Your task to perform on an android device: Open Amazon Image 0: 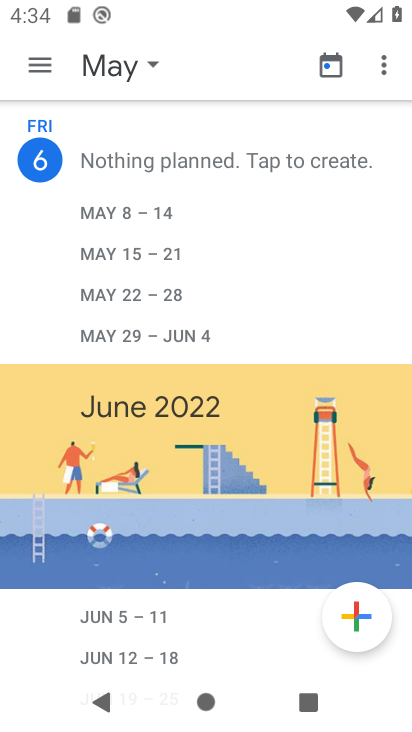
Step 0: press home button
Your task to perform on an android device: Open Amazon Image 1: 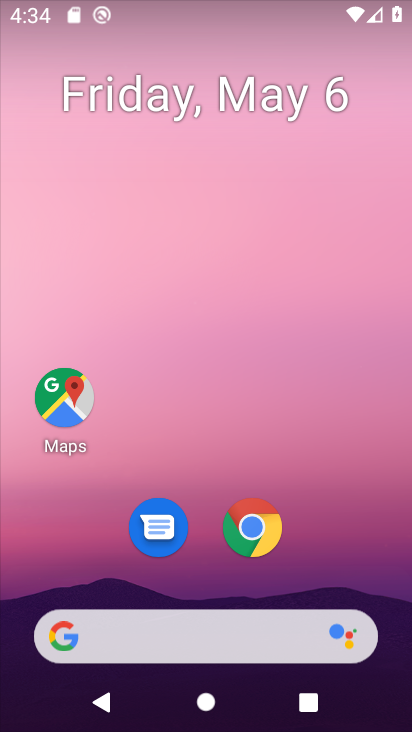
Step 1: click (262, 526)
Your task to perform on an android device: Open Amazon Image 2: 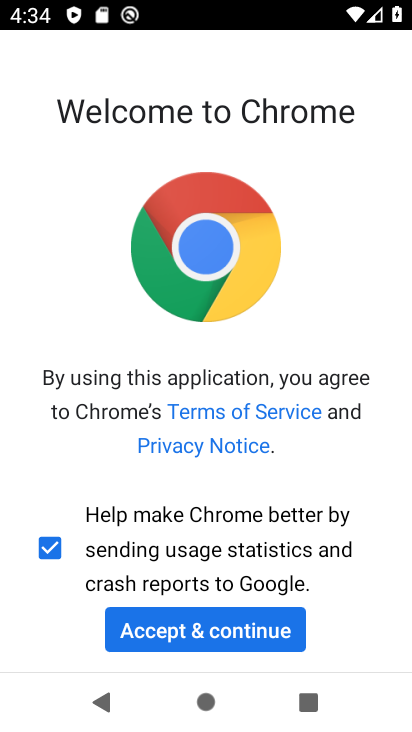
Step 2: click (218, 618)
Your task to perform on an android device: Open Amazon Image 3: 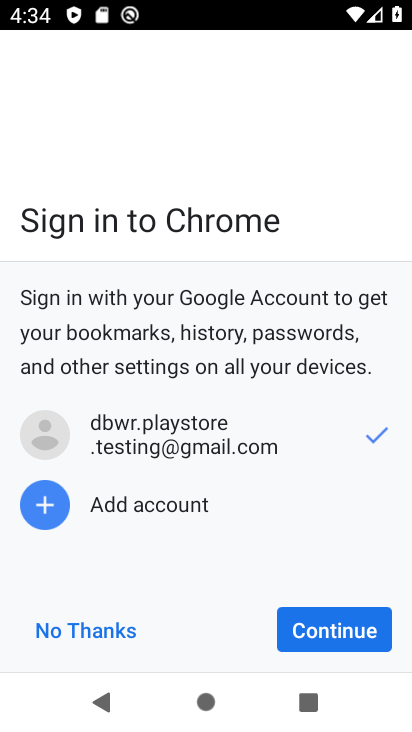
Step 3: click (333, 651)
Your task to perform on an android device: Open Amazon Image 4: 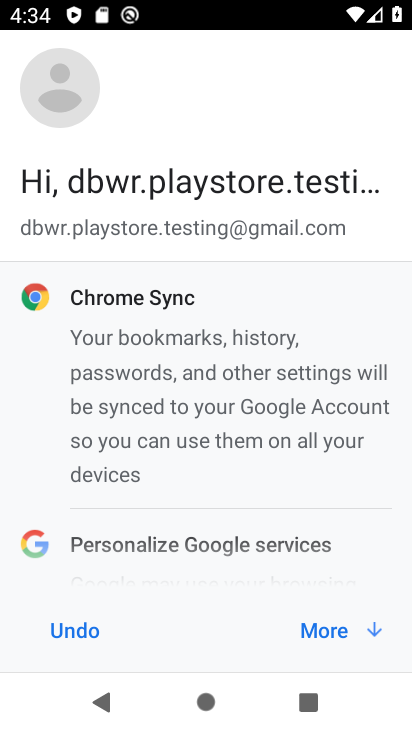
Step 4: click (356, 627)
Your task to perform on an android device: Open Amazon Image 5: 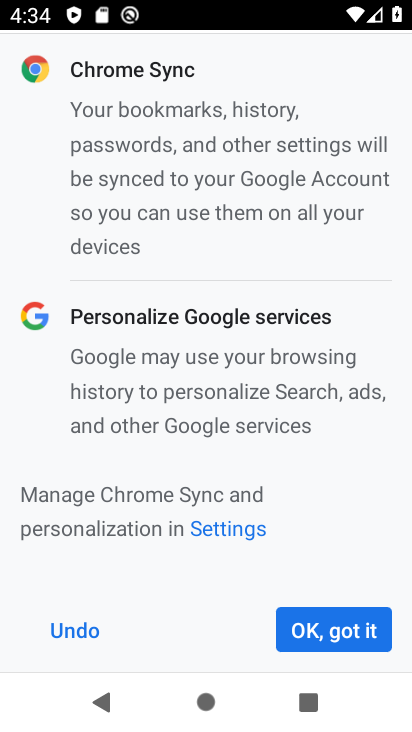
Step 5: click (351, 625)
Your task to perform on an android device: Open Amazon Image 6: 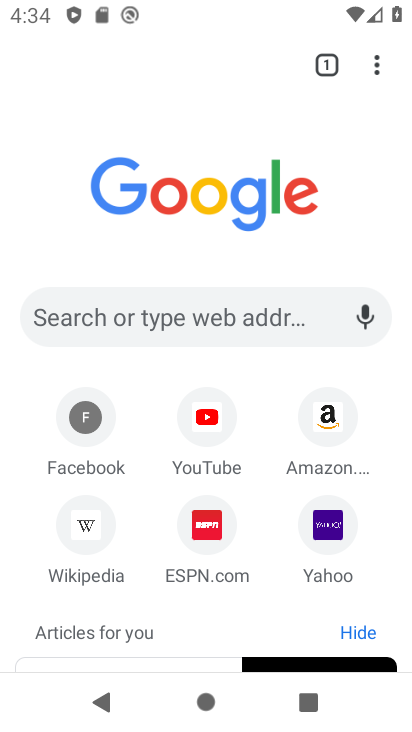
Step 6: click (314, 431)
Your task to perform on an android device: Open Amazon Image 7: 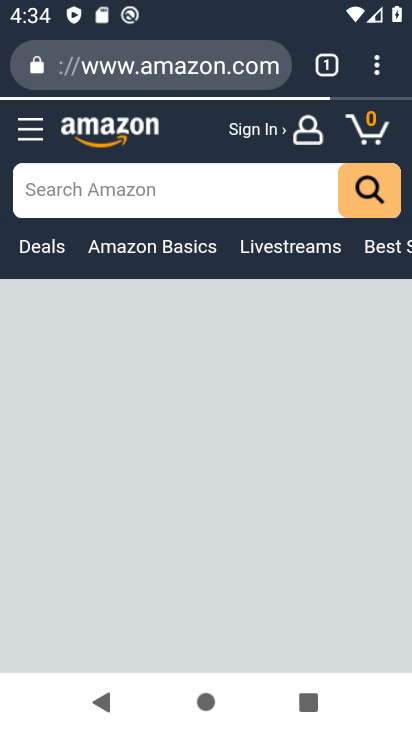
Step 7: task complete